Your task to perform on an android device: turn off javascript in the chrome app Image 0: 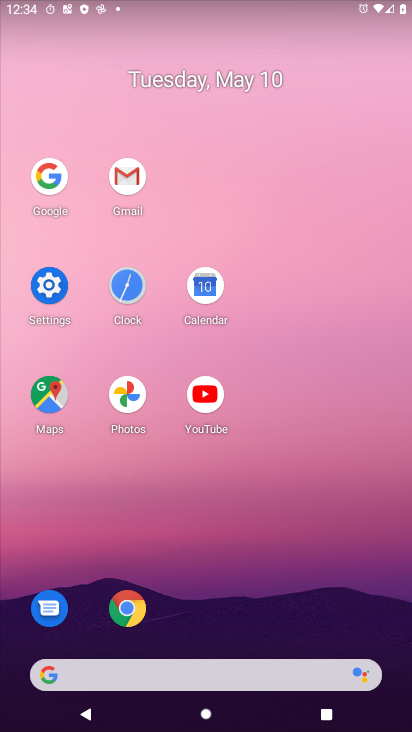
Step 0: click (133, 607)
Your task to perform on an android device: turn off javascript in the chrome app Image 1: 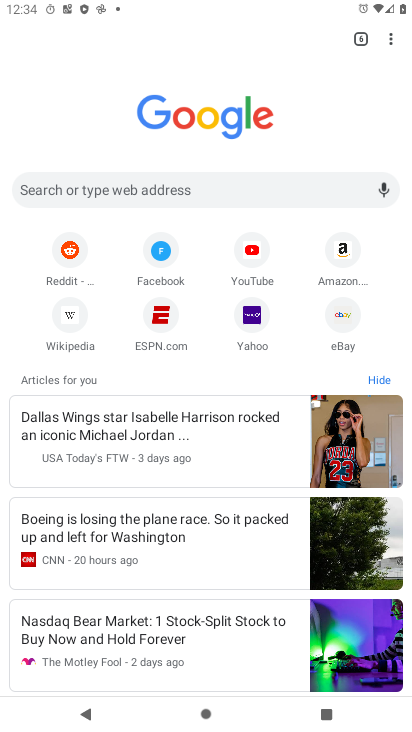
Step 1: click (395, 48)
Your task to perform on an android device: turn off javascript in the chrome app Image 2: 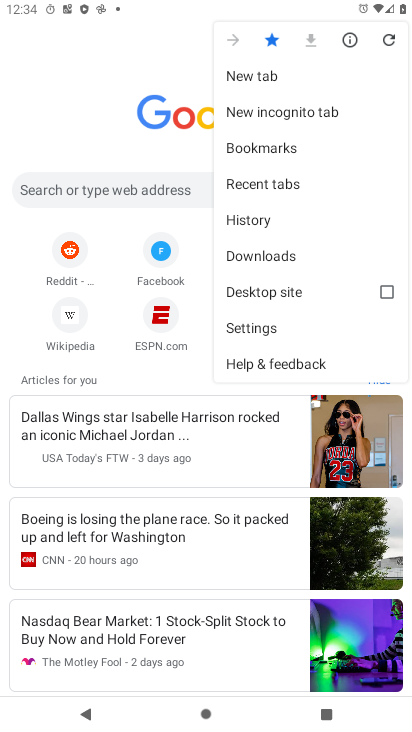
Step 2: click (261, 329)
Your task to perform on an android device: turn off javascript in the chrome app Image 3: 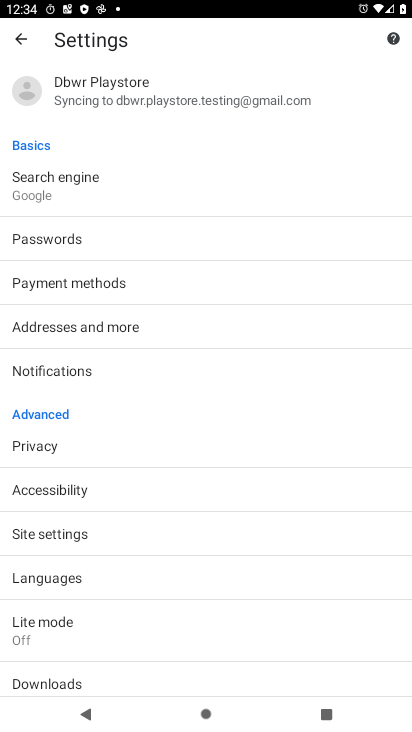
Step 3: click (108, 530)
Your task to perform on an android device: turn off javascript in the chrome app Image 4: 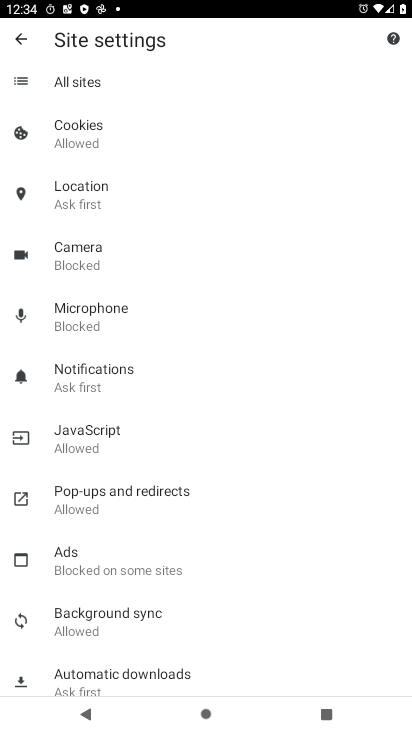
Step 4: click (138, 440)
Your task to perform on an android device: turn off javascript in the chrome app Image 5: 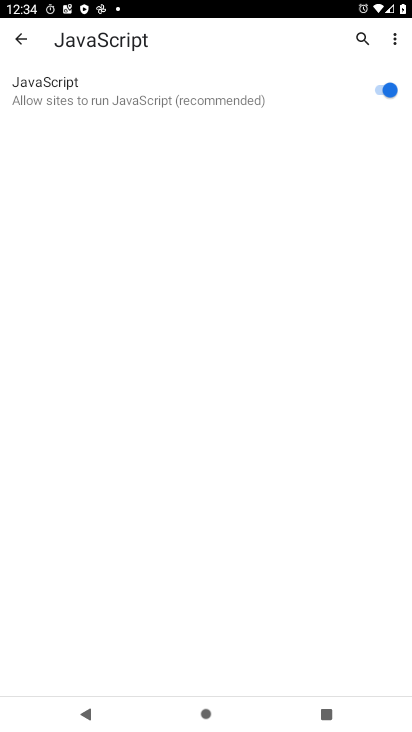
Step 5: click (364, 80)
Your task to perform on an android device: turn off javascript in the chrome app Image 6: 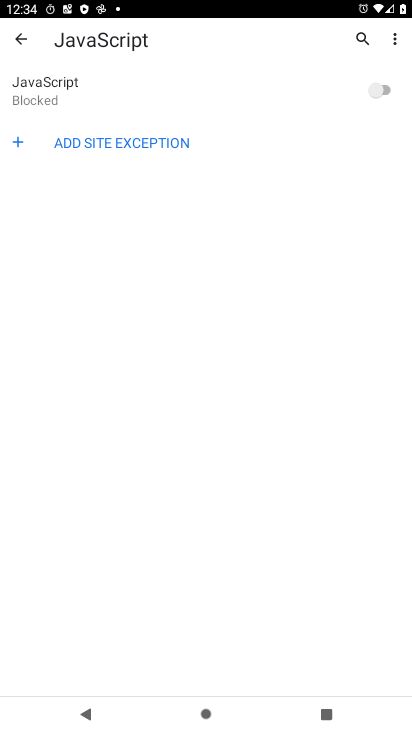
Step 6: task complete